Your task to perform on an android device: turn off sleep mode Image 0: 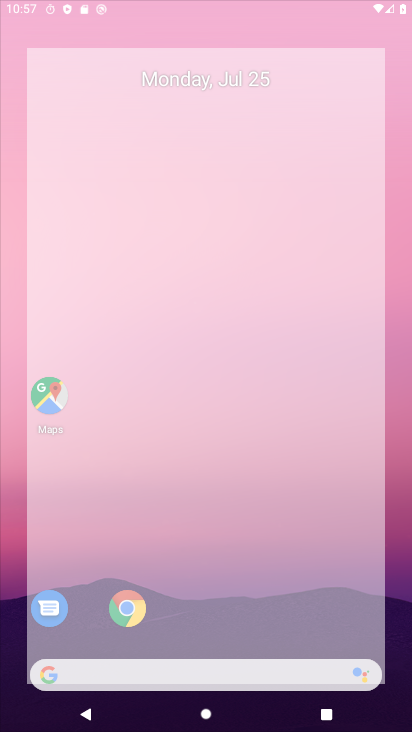
Step 0: drag from (260, 501) to (400, 44)
Your task to perform on an android device: turn off sleep mode Image 1: 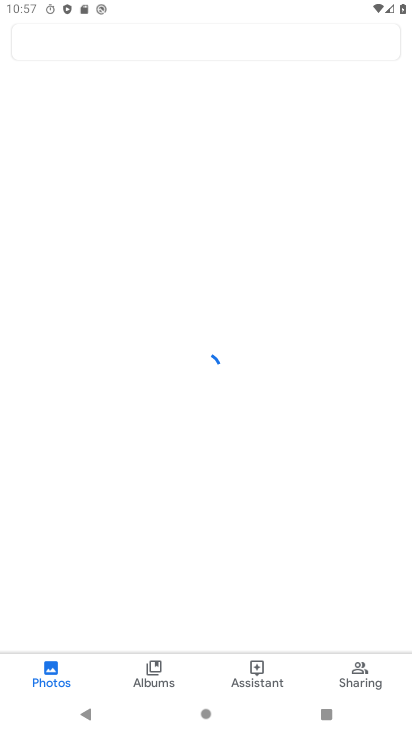
Step 1: press home button
Your task to perform on an android device: turn off sleep mode Image 2: 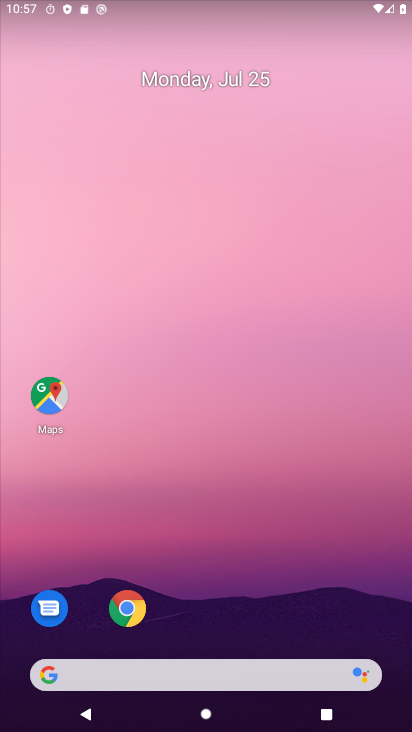
Step 2: drag from (221, 567) to (215, 3)
Your task to perform on an android device: turn off sleep mode Image 3: 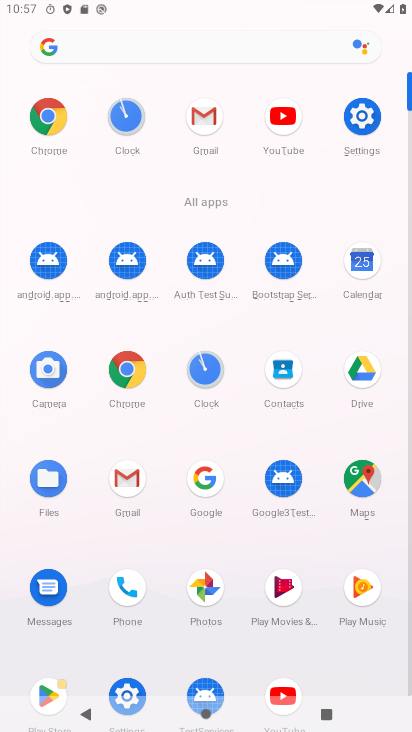
Step 3: click (359, 115)
Your task to perform on an android device: turn off sleep mode Image 4: 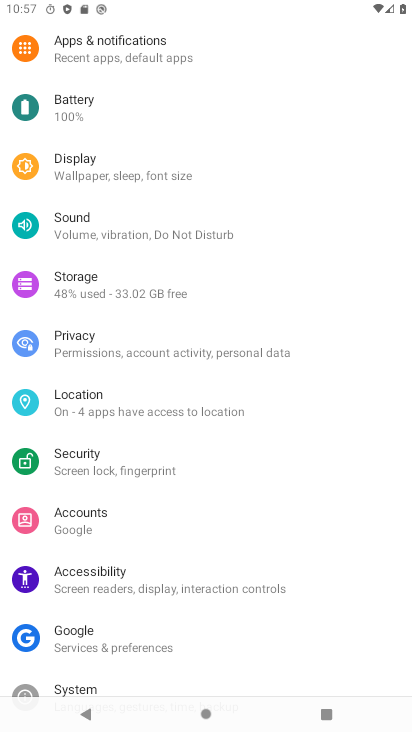
Step 4: drag from (199, 158) to (196, 630)
Your task to perform on an android device: turn off sleep mode Image 5: 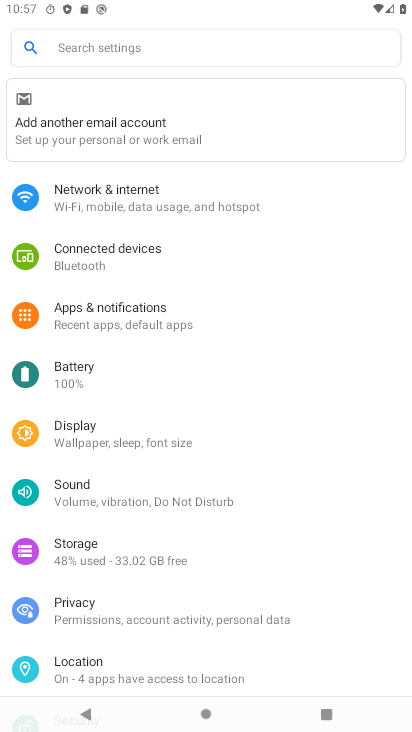
Step 5: drag from (144, 221) to (109, 526)
Your task to perform on an android device: turn off sleep mode Image 6: 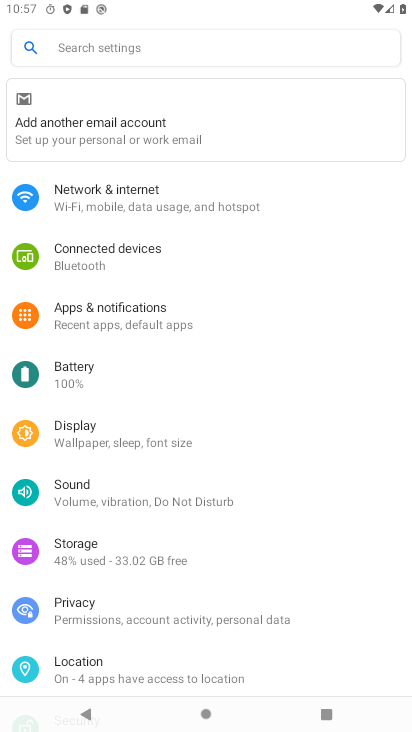
Step 6: click (88, 436)
Your task to perform on an android device: turn off sleep mode Image 7: 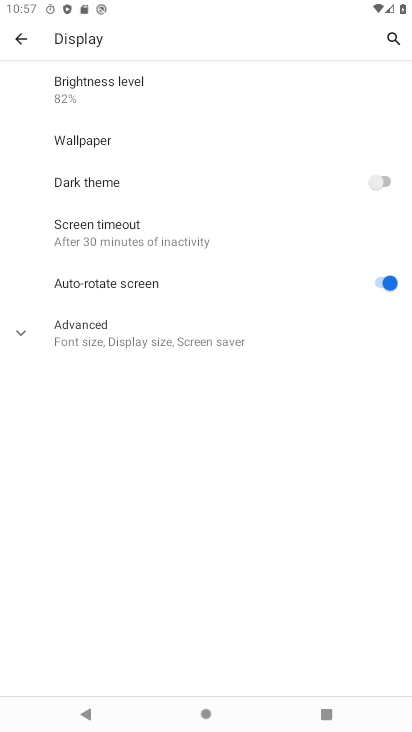
Step 7: click (101, 240)
Your task to perform on an android device: turn off sleep mode Image 8: 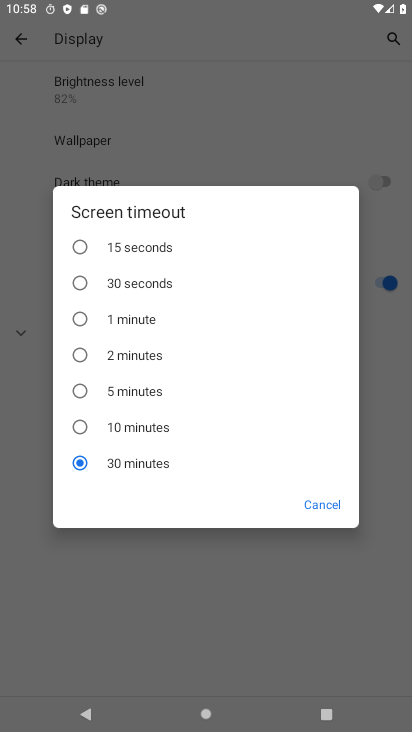
Step 8: task complete